Your task to perform on an android device: turn on location history Image 0: 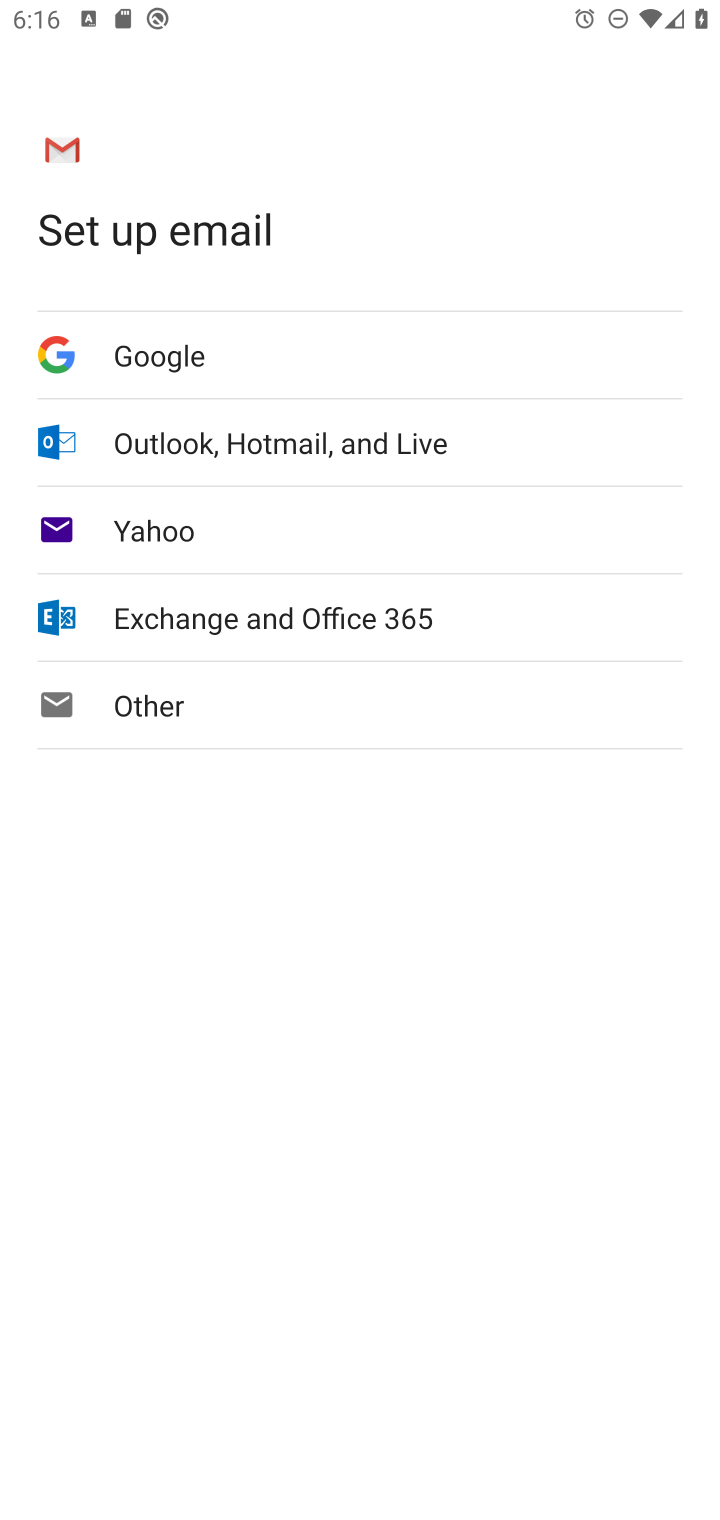
Step 0: press home button
Your task to perform on an android device: turn on location history Image 1: 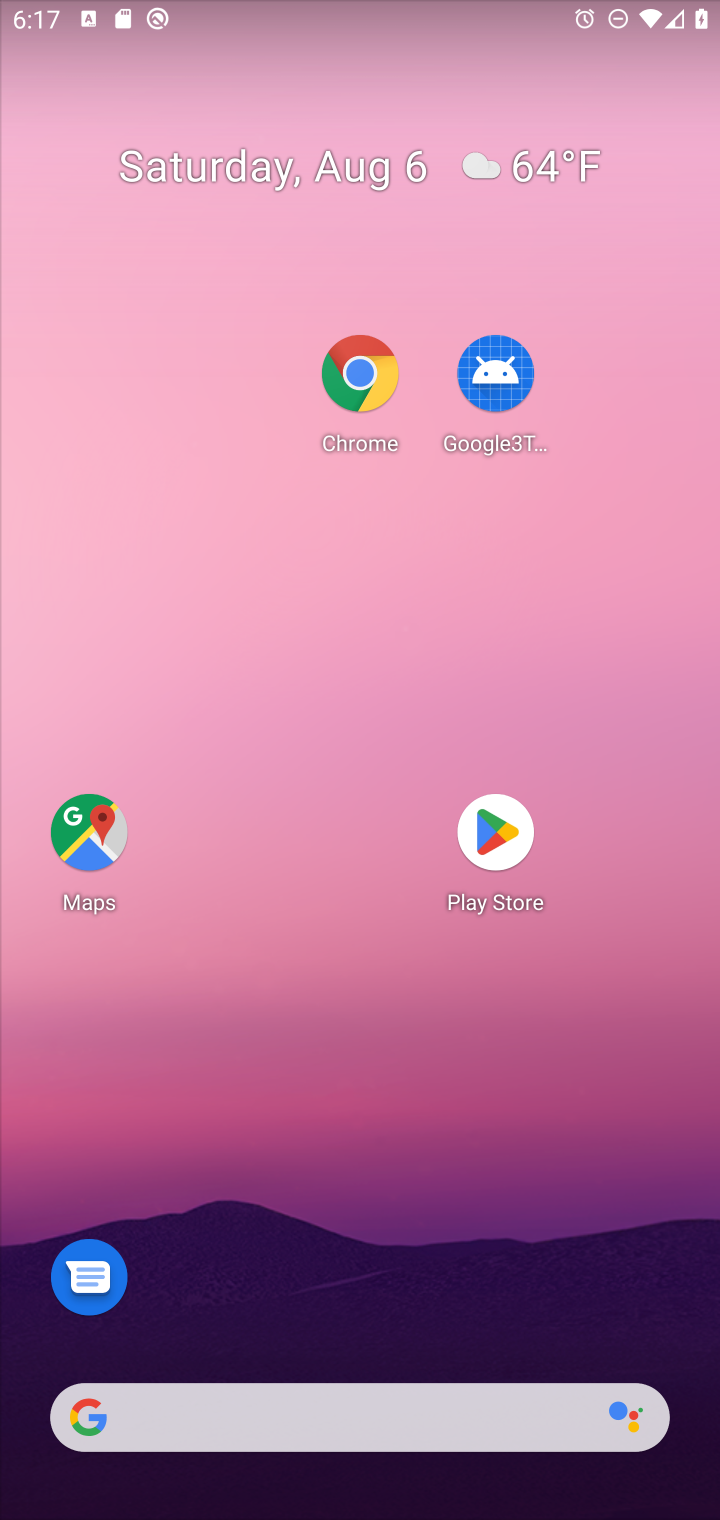
Step 1: drag from (466, 1426) to (461, 239)
Your task to perform on an android device: turn on location history Image 2: 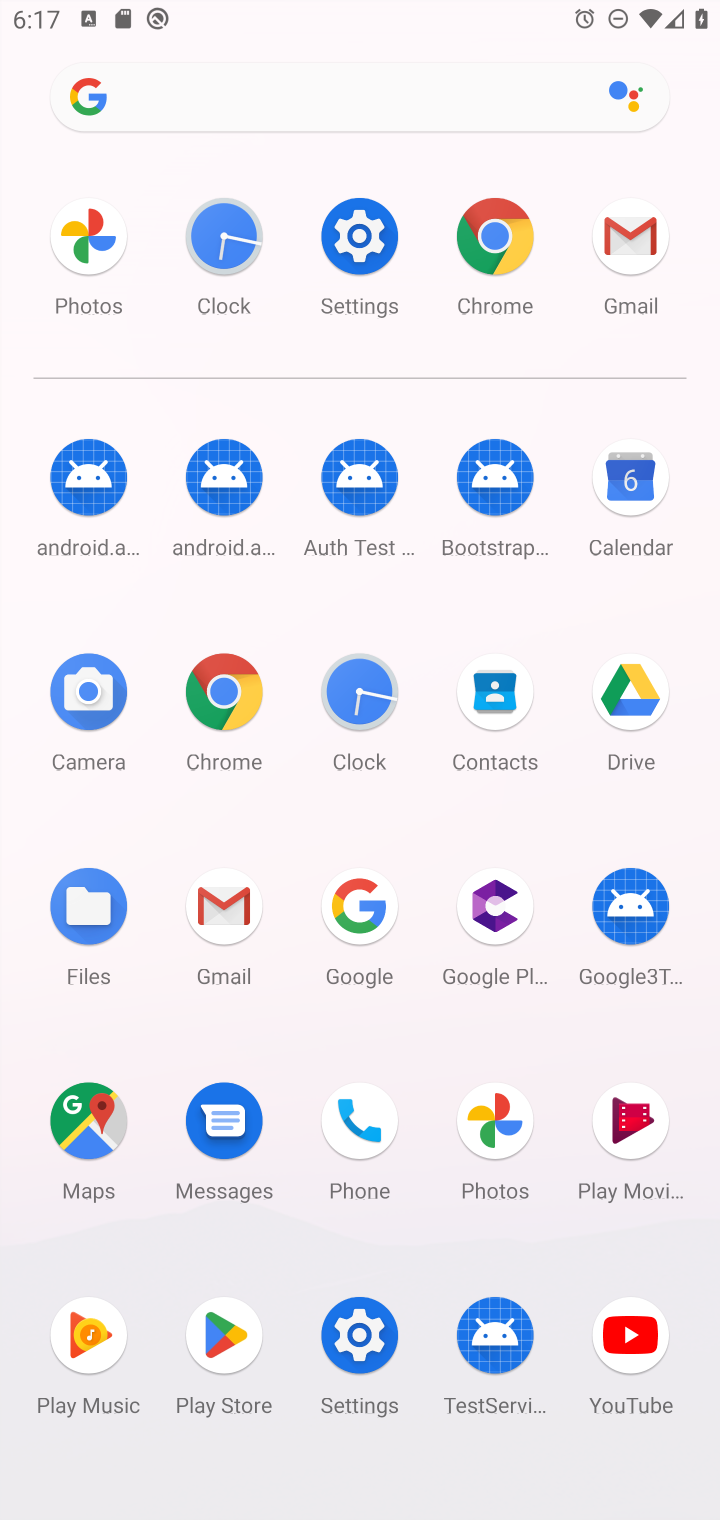
Step 2: click (339, 249)
Your task to perform on an android device: turn on location history Image 3: 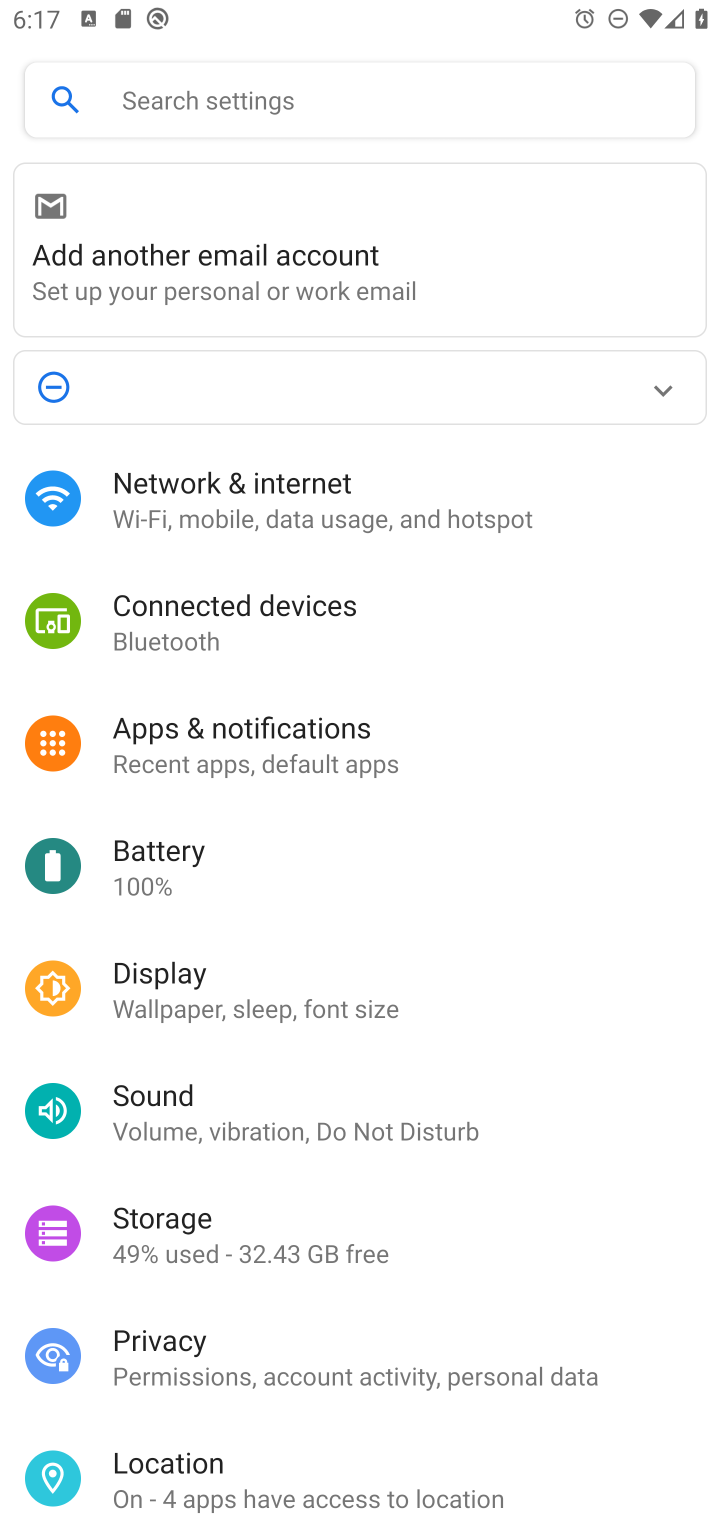
Step 3: click (270, 1500)
Your task to perform on an android device: turn on location history Image 4: 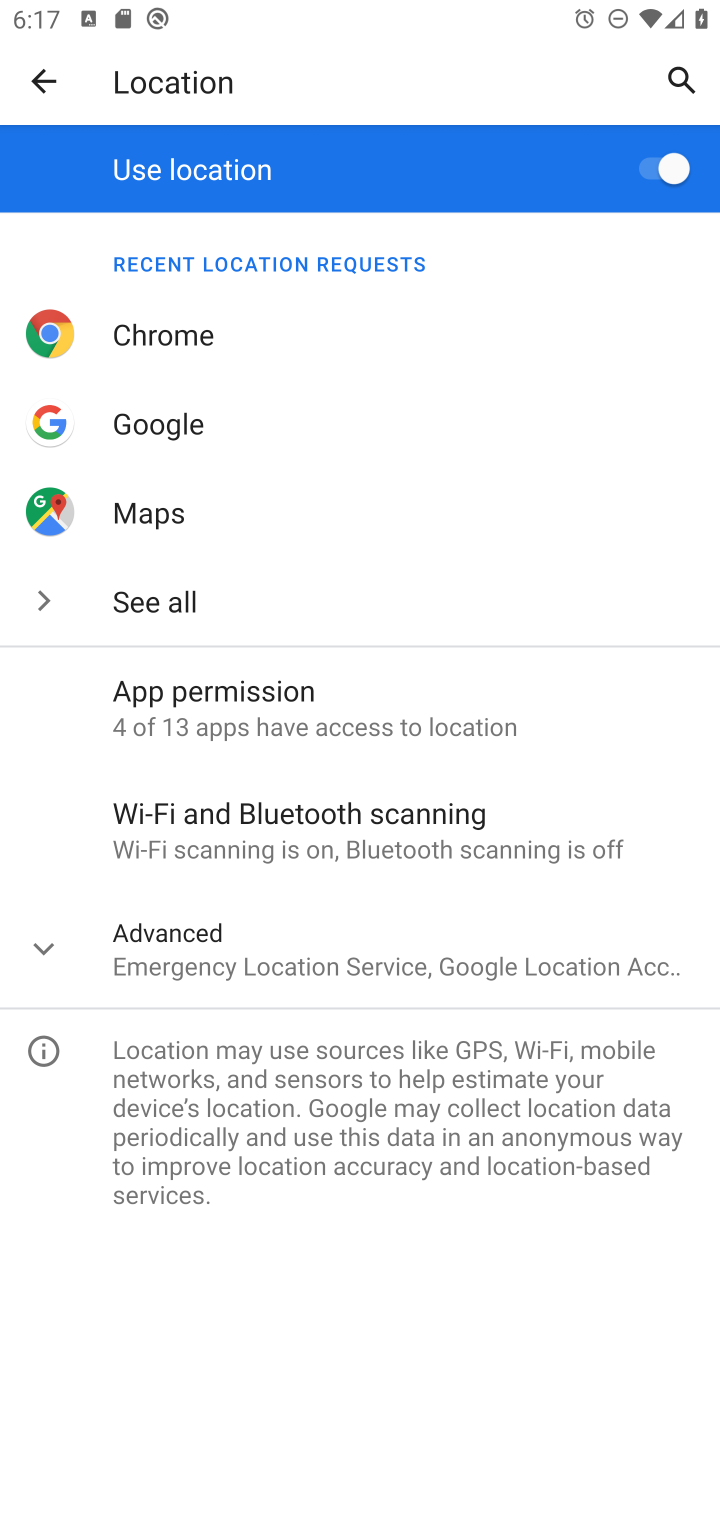
Step 4: click (213, 962)
Your task to perform on an android device: turn on location history Image 5: 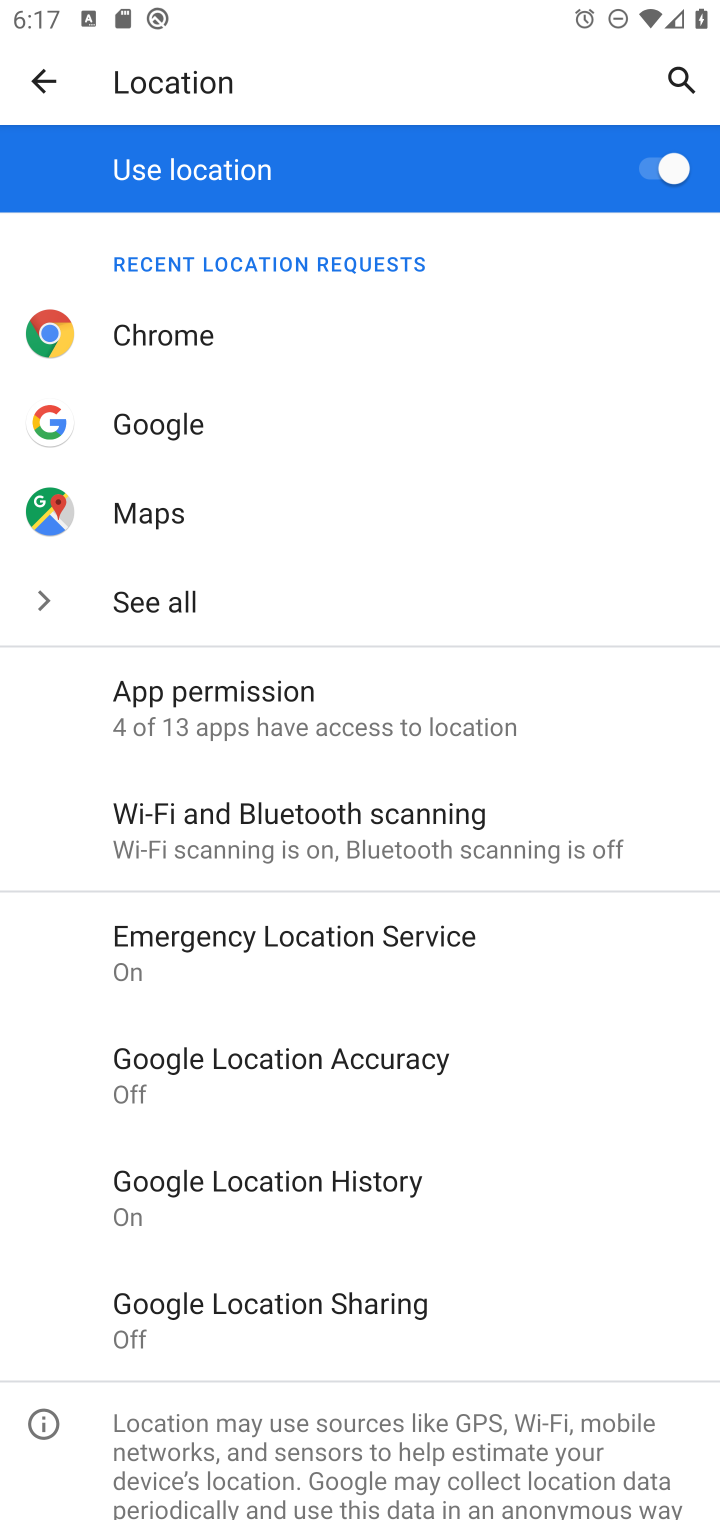
Step 5: click (235, 1204)
Your task to perform on an android device: turn on location history Image 6: 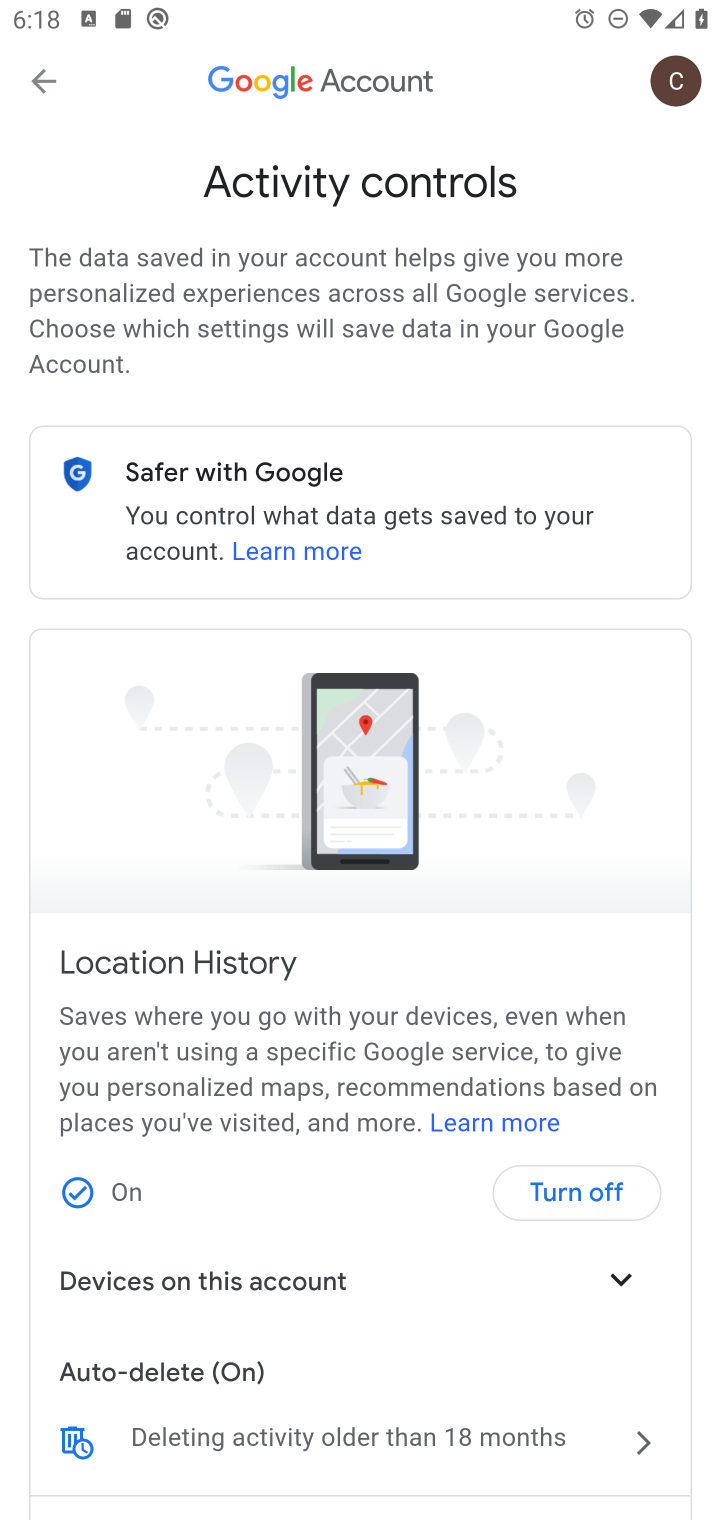
Step 6: task complete